Your task to perform on an android device: check out phone information Image 0: 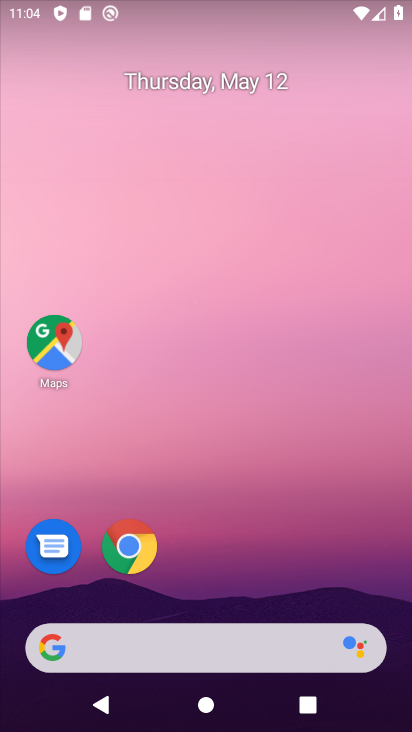
Step 0: drag from (231, 550) to (231, 108)
Your task to perform on an android device: check out phone information Image 1: 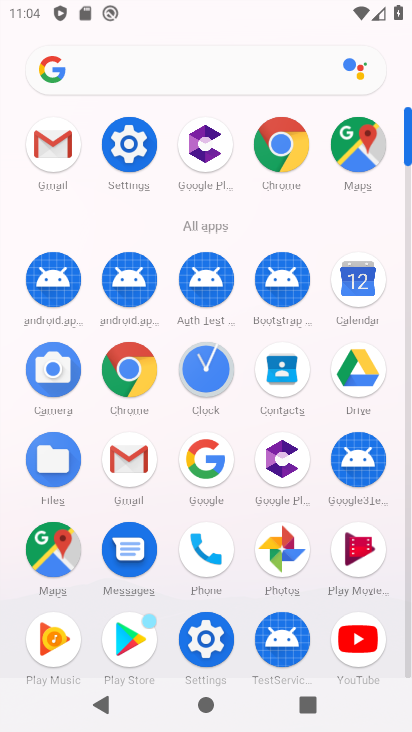
Step 1: click (132, 145)
Your task to perform on an android device: check out phone information Image 2: 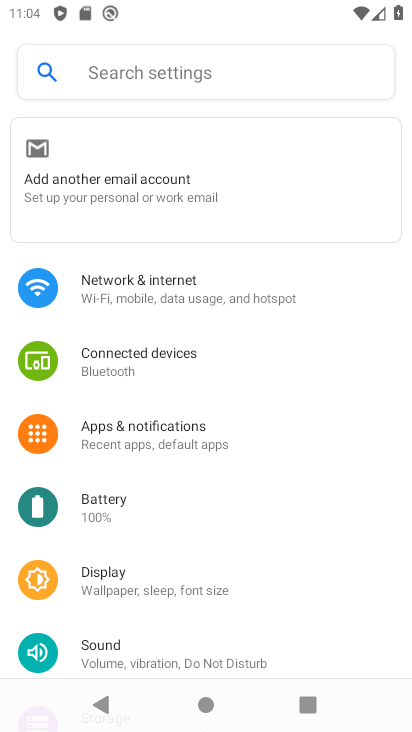
Step 2: drag from (138, 575) to (161, 195)
Your task to perform on an android device: check out phone information Image 3: 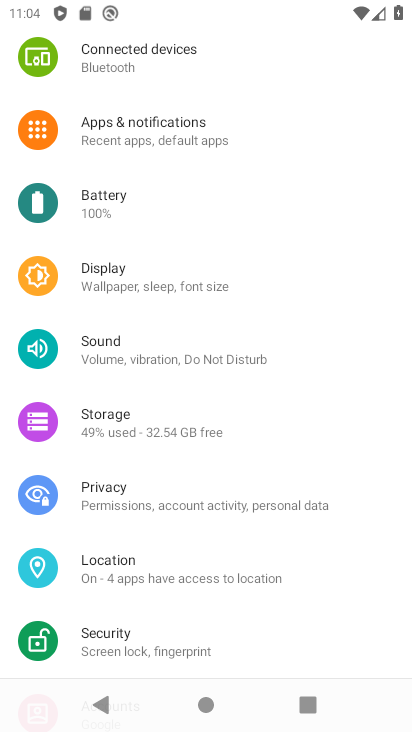
Step 3: drag from (150, 634) to (166, 207)
Your task to perform on an android device: check out phone information Image 4: 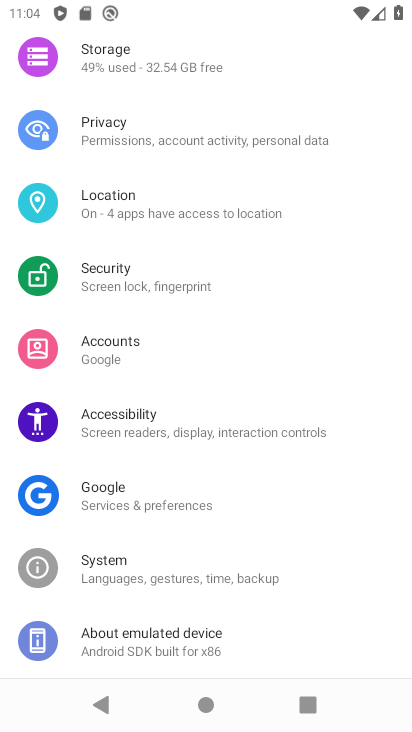
Step 4: click (147, 634)
Your task to perform on an android device: check out phone information Image 5: 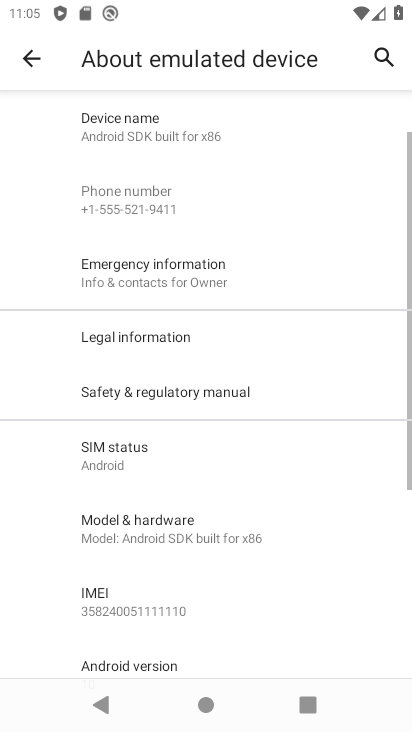
Step 5: task complete